Your task to perform on an android device: turn on the 12-hour format for clock Image 0: 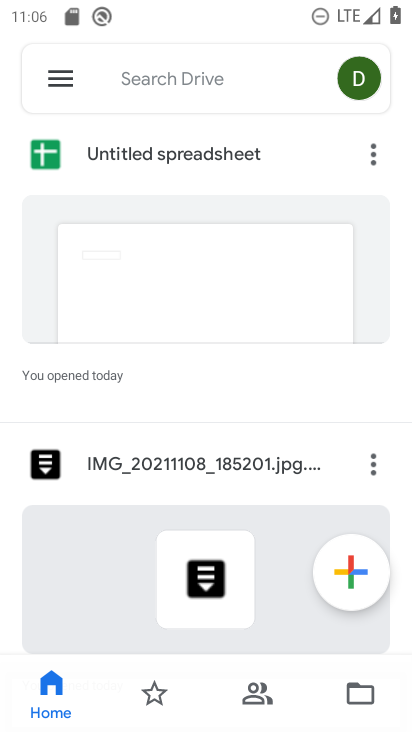
Step 0: press home button
Your task to perform on an android device: turn on the 12-hour format for clock Image 1: 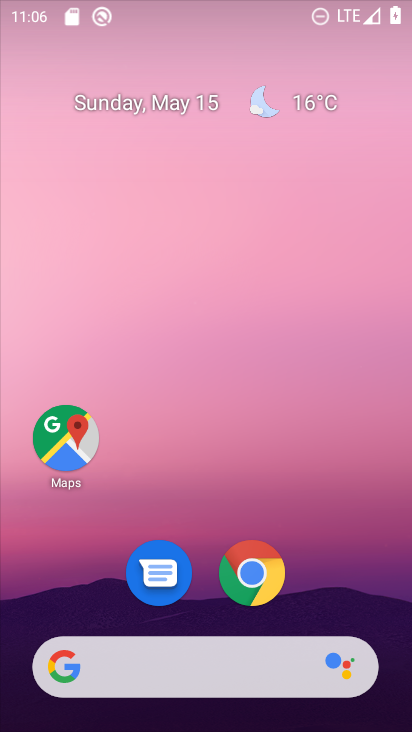
Step 1: drag from (356, 594) to (326, 45)
Your task to perform on an android device: turn on the 12-hour format for clock Image 2: 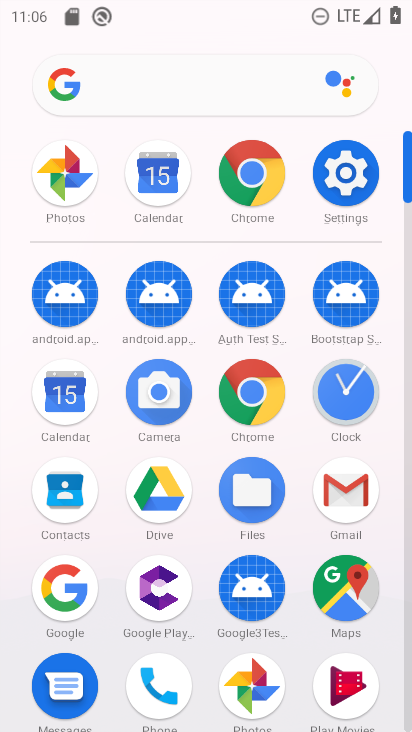
Step 2: click (335, 397)
Your task to perform on an android device: turn on the 12-hour format for clock Image 3: 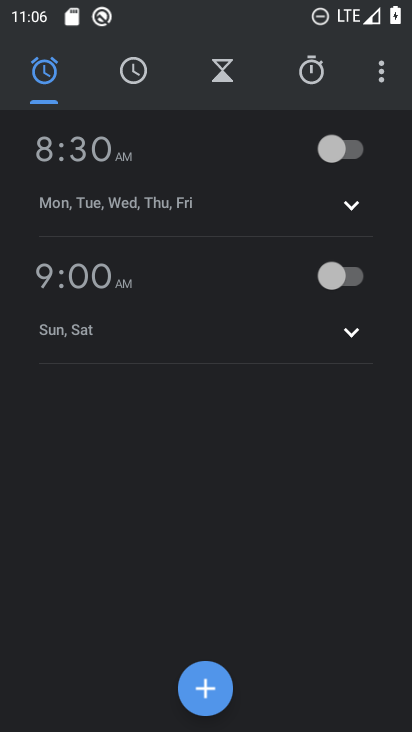
Step 3: click (380, 80)
Your task to perform on an android device: turn on the 12-hour format for clock Image 4: 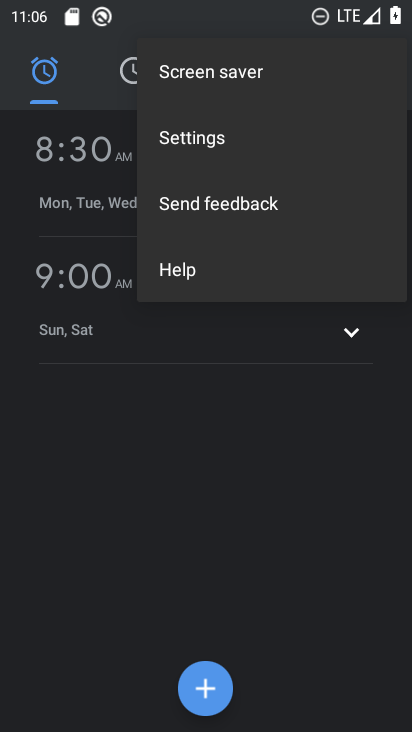
Step 4: click (241, 141)
Your task to perform on an android device: turn on the 12-hour format for clock Image 5: 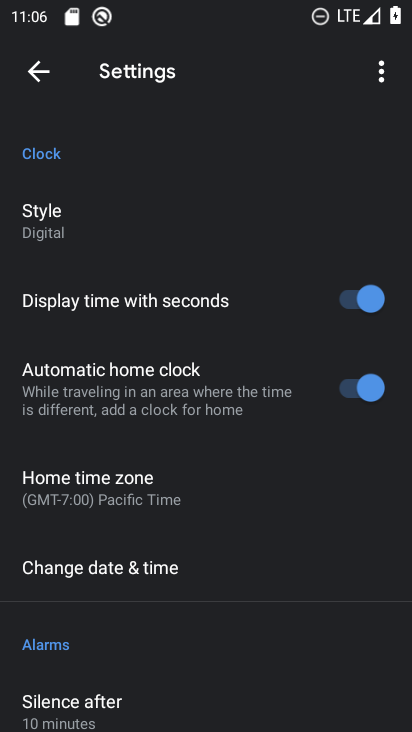
Step 5: click (131, 582)
Your task to perform on an android device: turn on the 12-hour format for clock Image 6: 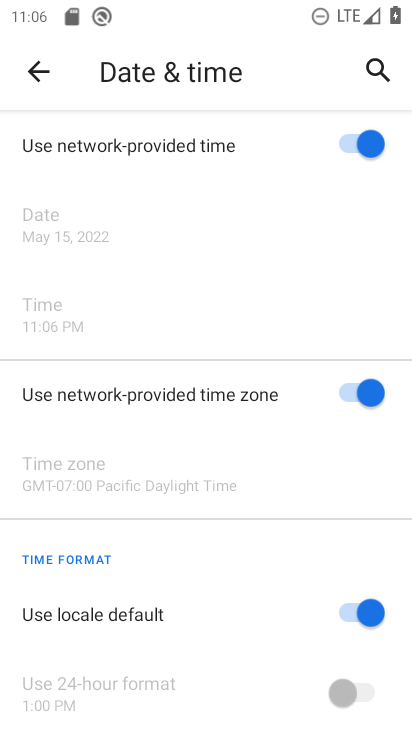
Step 6: drag from (103, 580) to (104, 195)
Your task to perform on an android device: turn on the 12-hour format for clock Image 7: 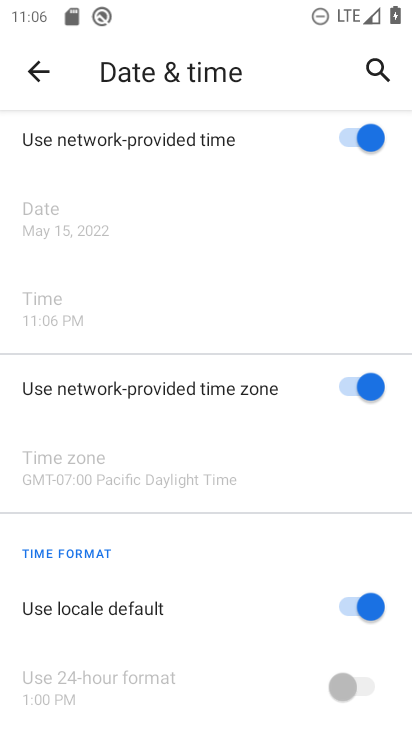
Step 7: drag from (221, 608) to (130, 179)
Your task to perform on an android device: turn on the 12-hour format for clock Image 8: 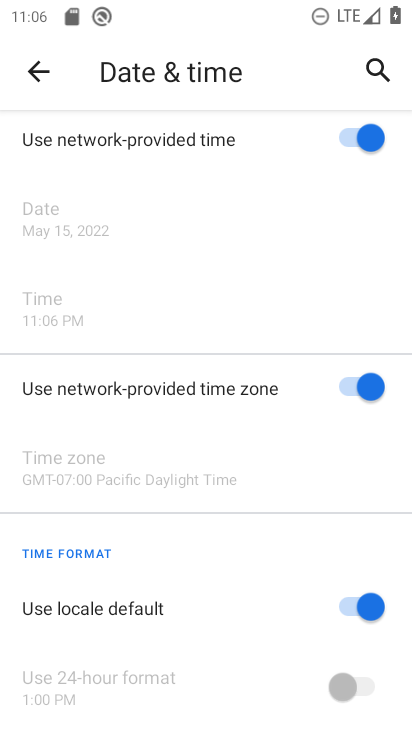
Step 8: click (351, 609)
Your task to perform on an android device: turn on the 12-hour format for clock Image 9: 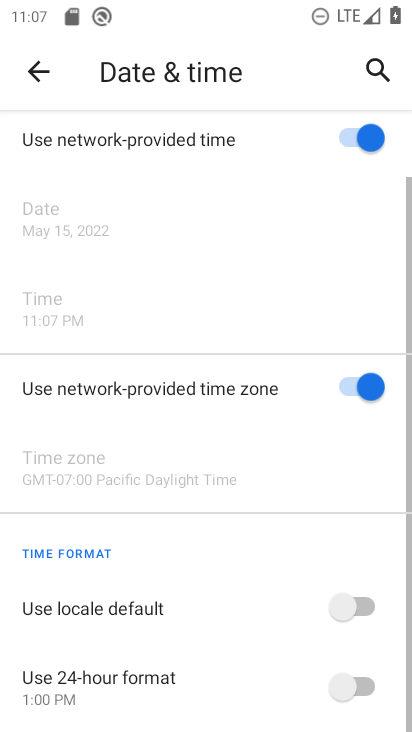
Step 9: click (357, 679)
Your task to perform on an android device: turn on the 12-hour format for clock Image 10: 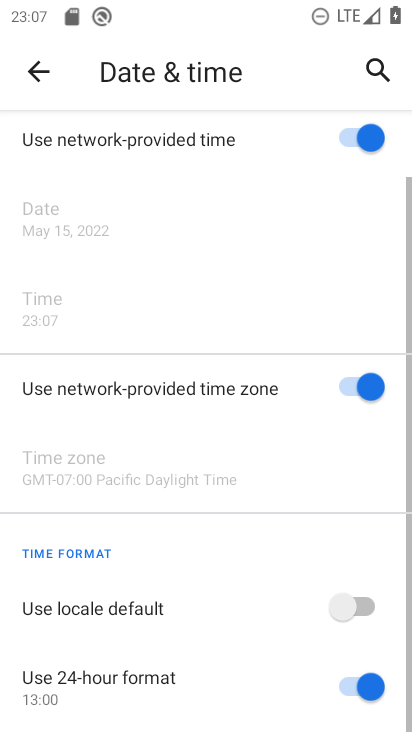
Step 10: task complete